Your task to perform on an android device: turn on data saver in the chrome app Image 0: 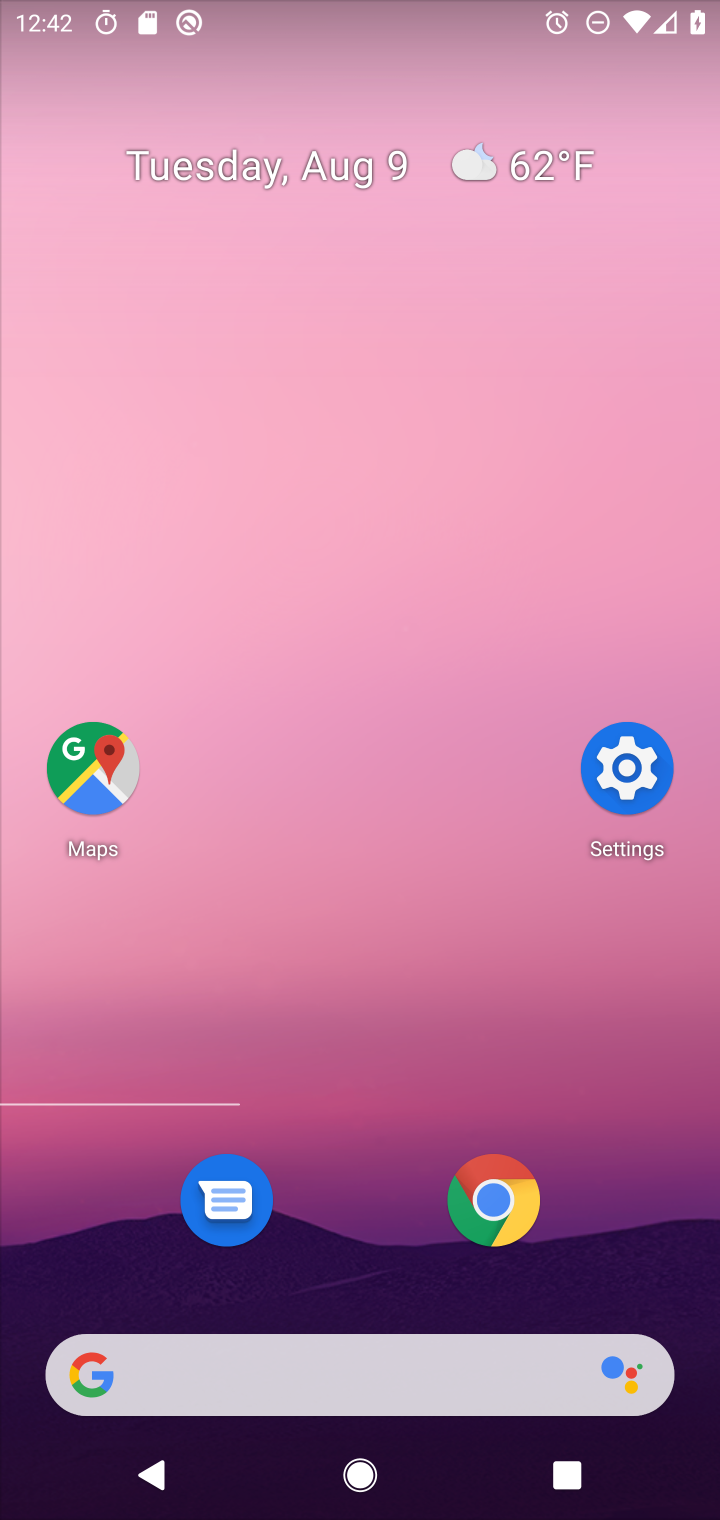
Step 0: press home button
Your task to perform on an android device: turn on data saver in the chrome app Image 1: 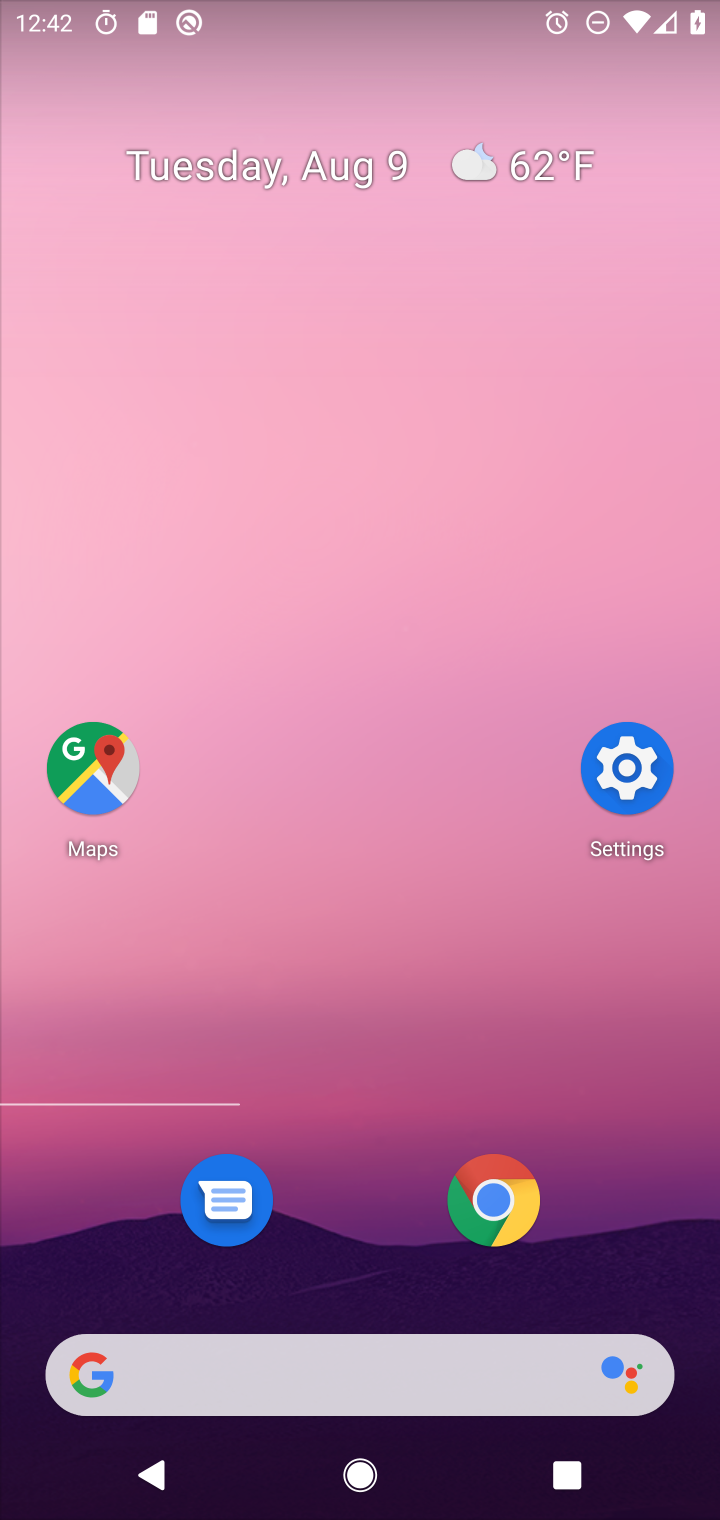
Step 1: click (489, 1186)
Your task to perform on an android device: turn on data saver in the chrome app Image 2: 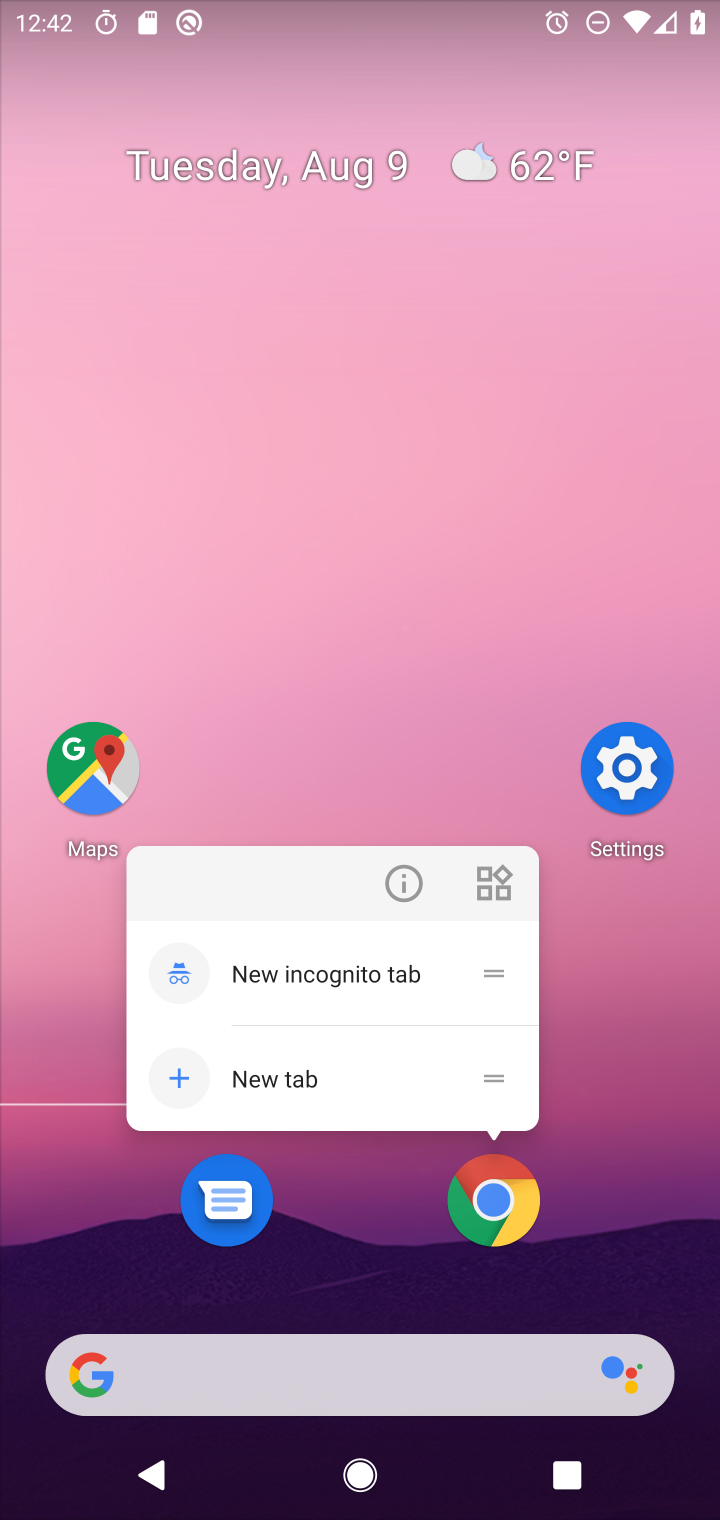
Step 2: click (491, 1198)
Your task to perform on an android device: turn on data saver in the chrome app Image 3: 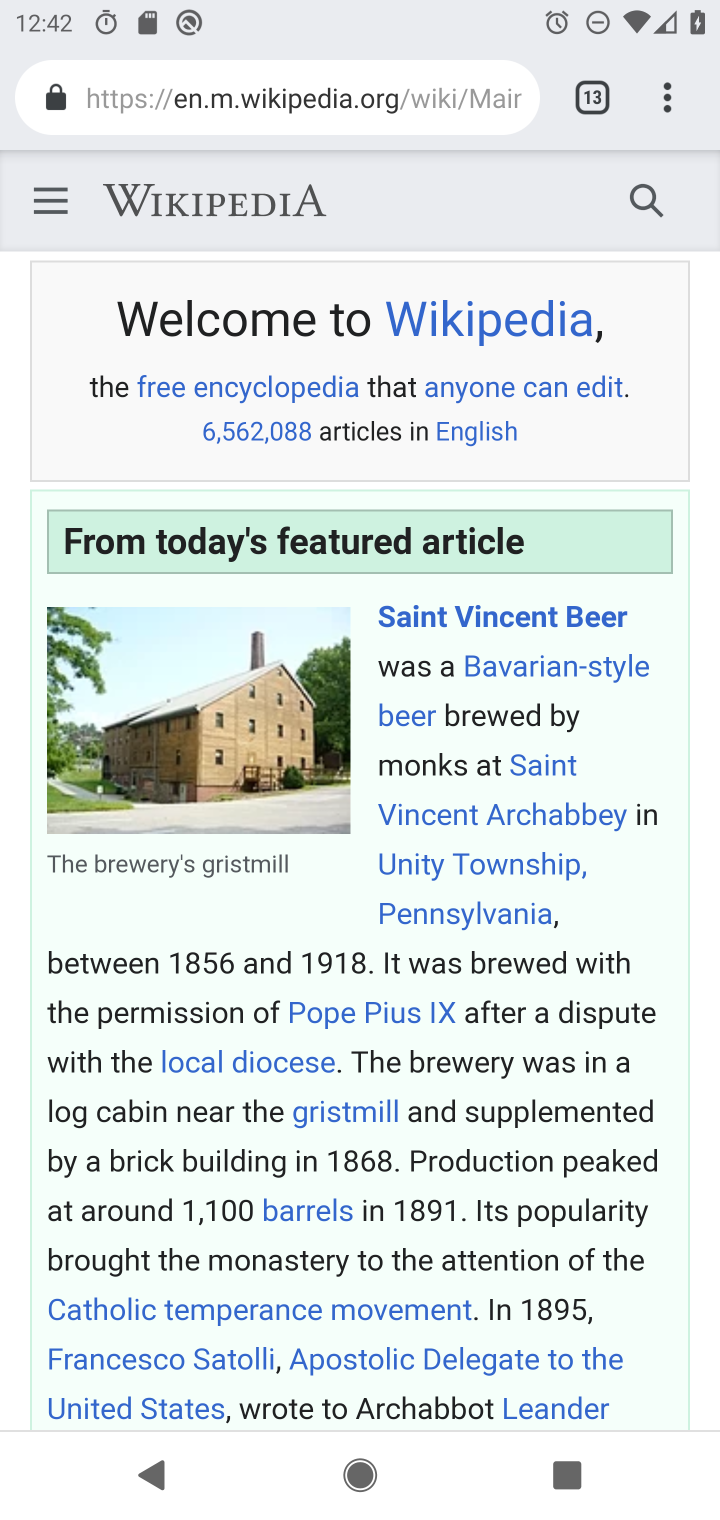
Step 3: drag from (660, 90) to (395, 1273)
Your task to perform on an android device: turn on data saver in the chrome app Image 4: 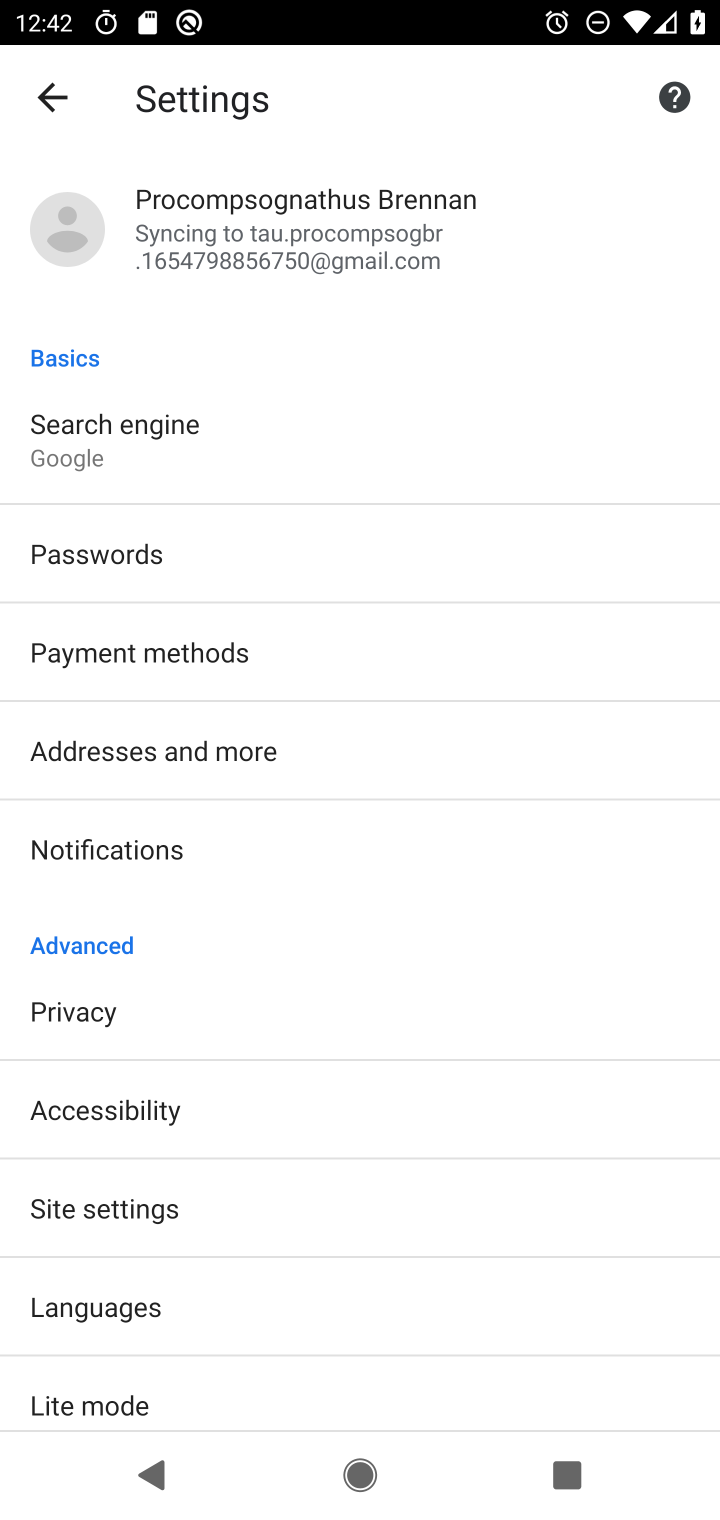
Step 4: click (235, 1380)
Your task to perform on an android device: turn on data saver in the chrome app Image 5: 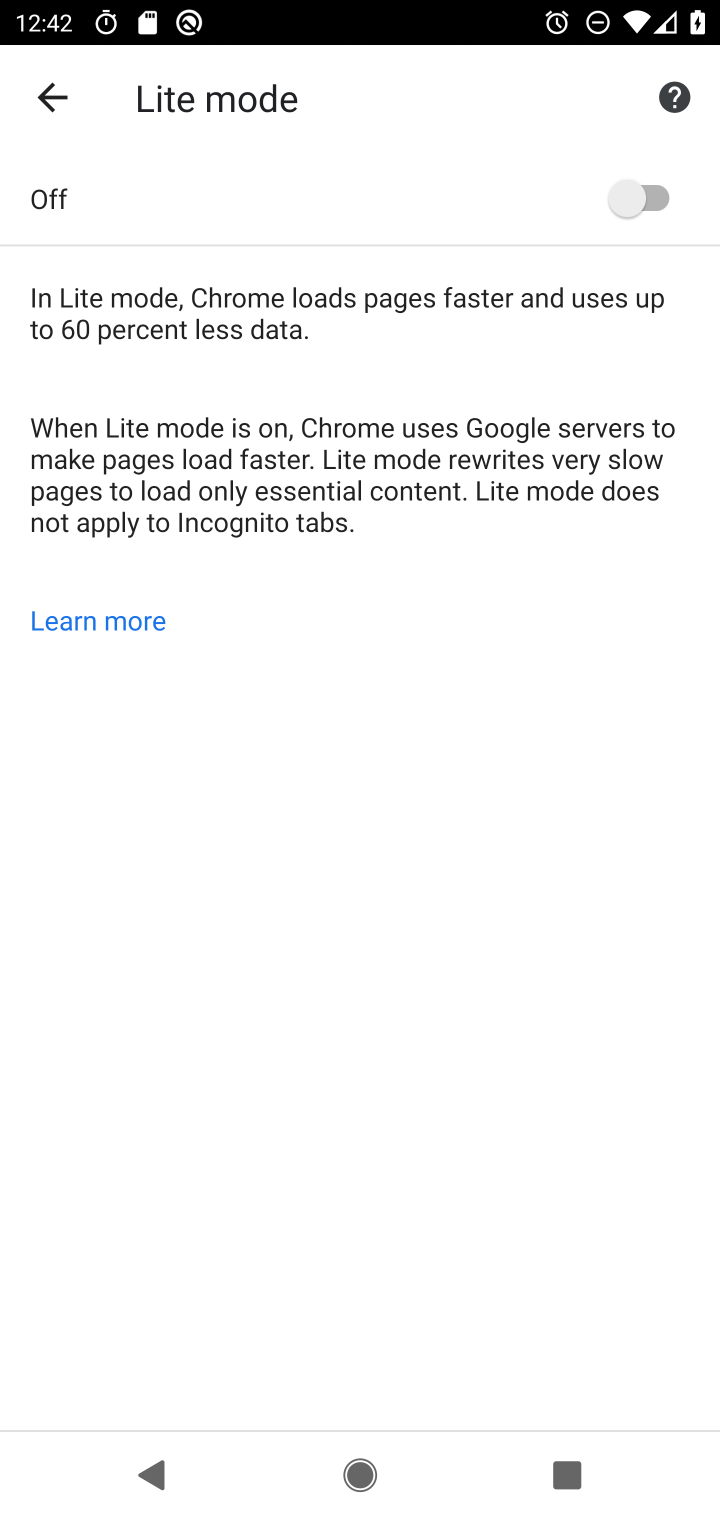
Step 5: click (652, 198)
Your task to perform on an android device: turn on data saver in the chrome app Image 6: 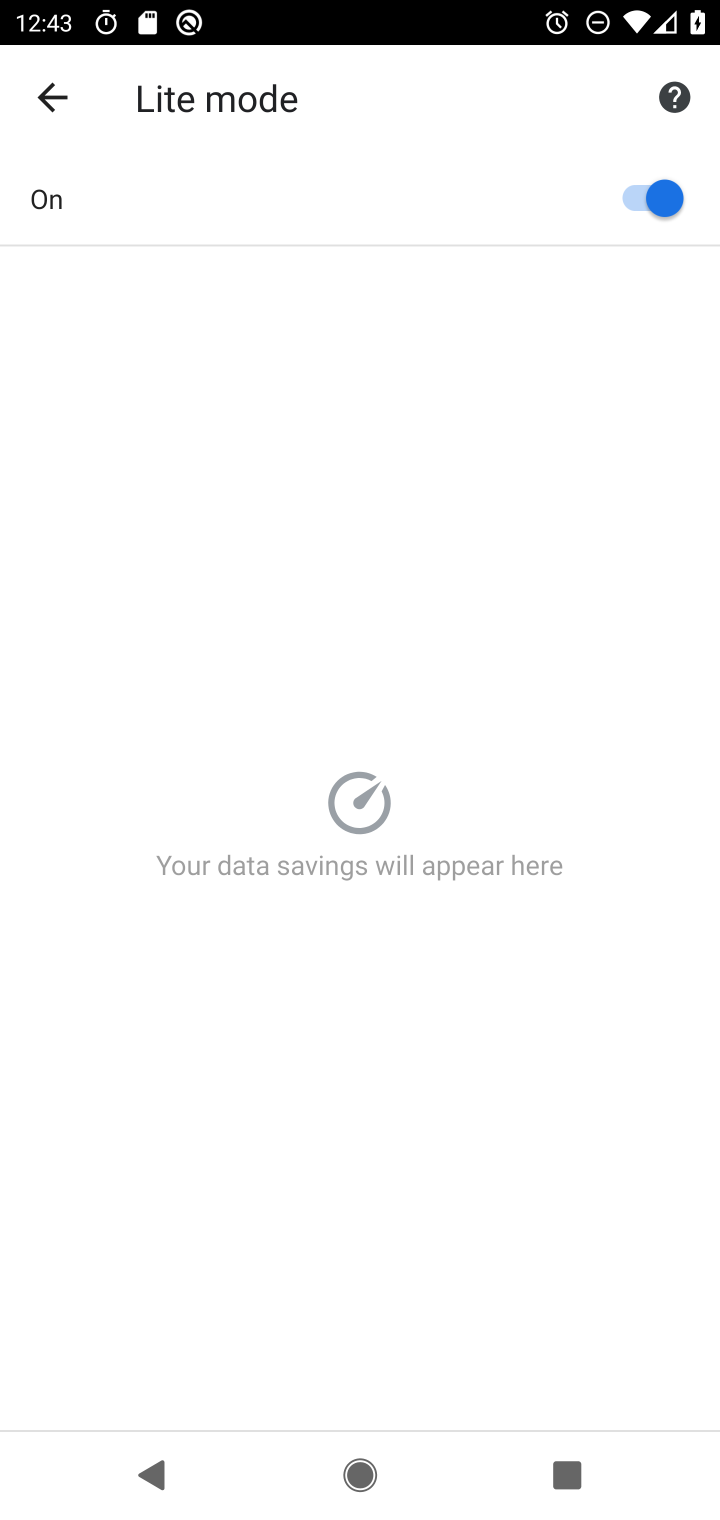
Step 6: task complete